Your task to perform on an android device: Open Google Maps and go to "Timeline" Image 0: 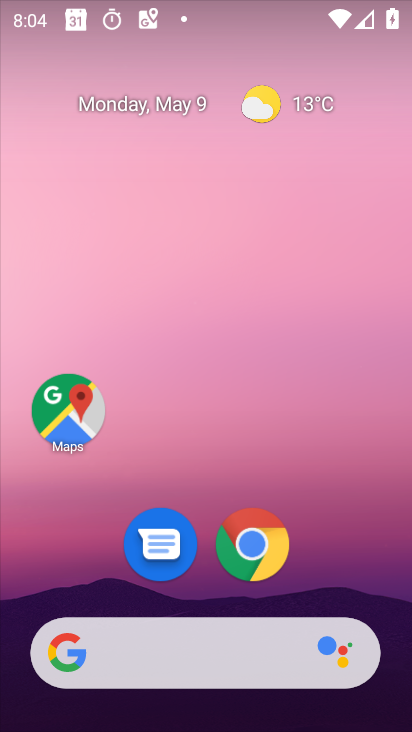
Step 0: drag from (388, 465) to (383, 7)
Your task to perform on an android device: Open Google Maps and go to "Timeline" Image 1: 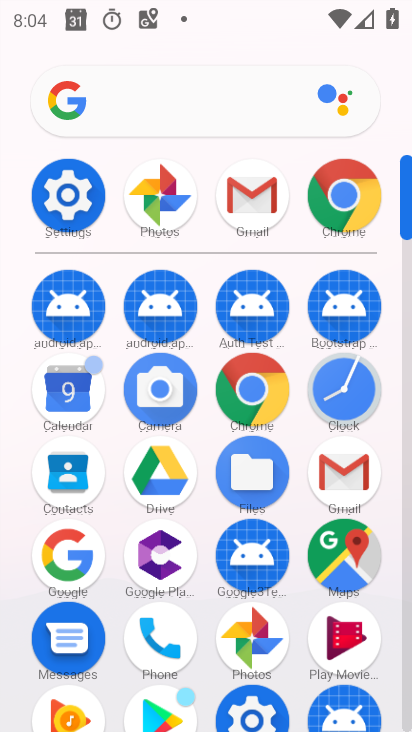
Step 1: click (325, 548)
Your task to perform on an android device: Open Google Maps and go to "Timeline" Image 2: 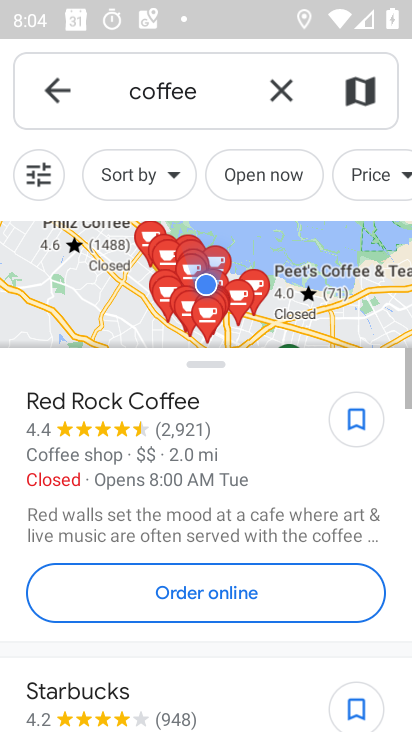
Step 2: click (60, 105)
Your task to perform on an android device: Open Google Maps and go to "Timeline" Image 3: 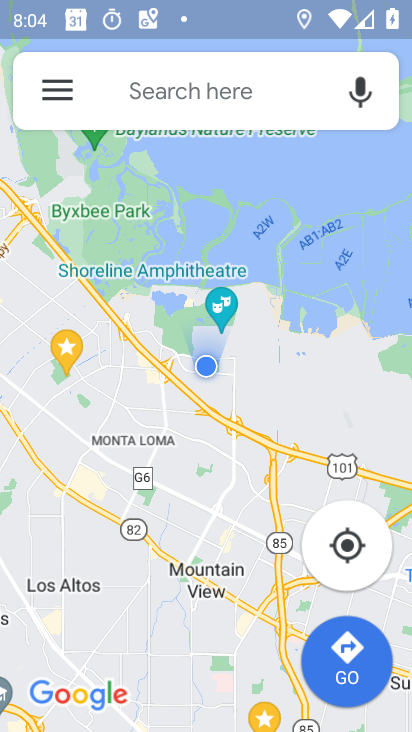
Step 3: click (60, 98)
Your task to perform on an android device: Open Google Maps and go to "Timeline" Image 4: 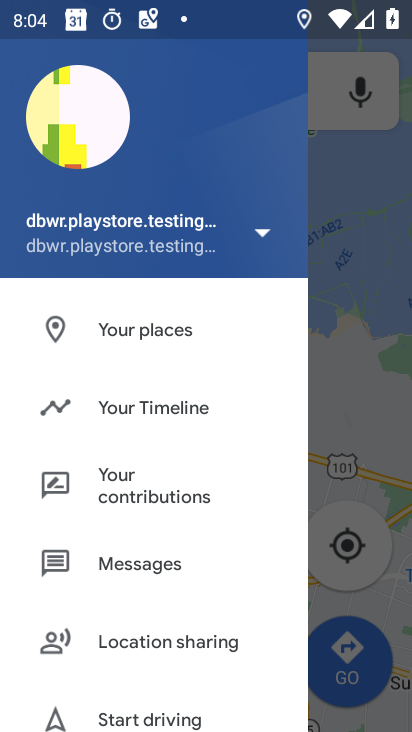
Step 4: click (155, 425)
Your task to perform on an android device: Open Google Maps and go to "Timeline" Image 5: 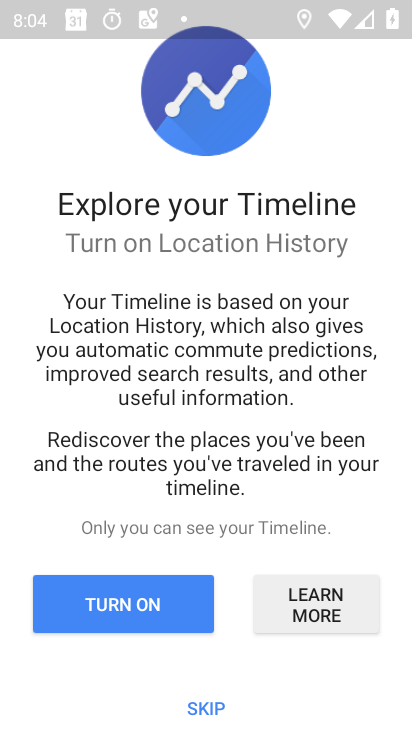
Step 5: click (318, 611)
Your task to perform on an android device: Open Google Maps and go to "Timeline" Image 6: 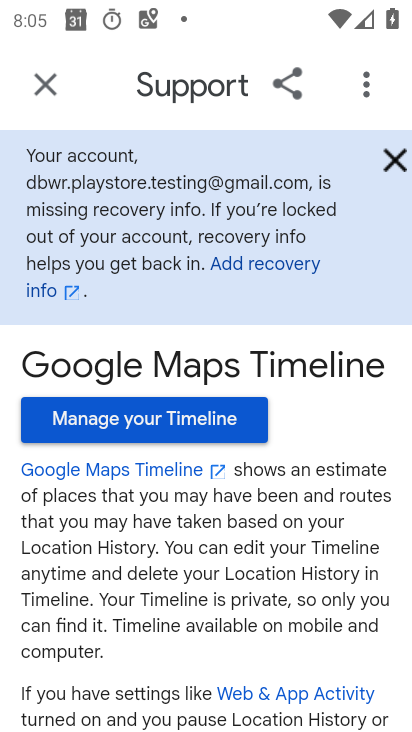
Step 6: task complete